Your task to perform on an android device: Go to display settings Image 0: 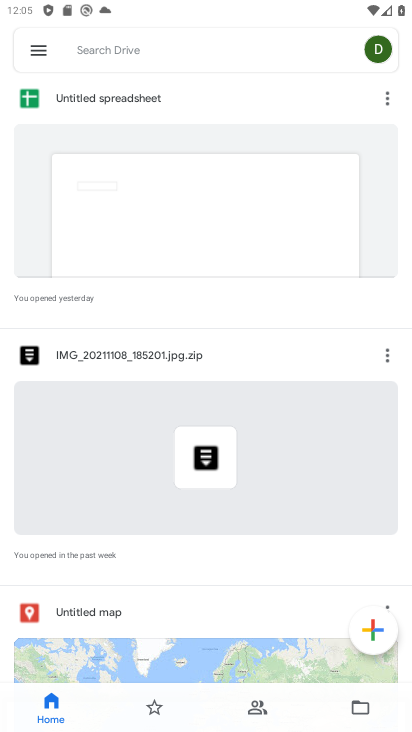
Step 0: press home button
Your task to perform on an android device: Go to display settings Image 1: 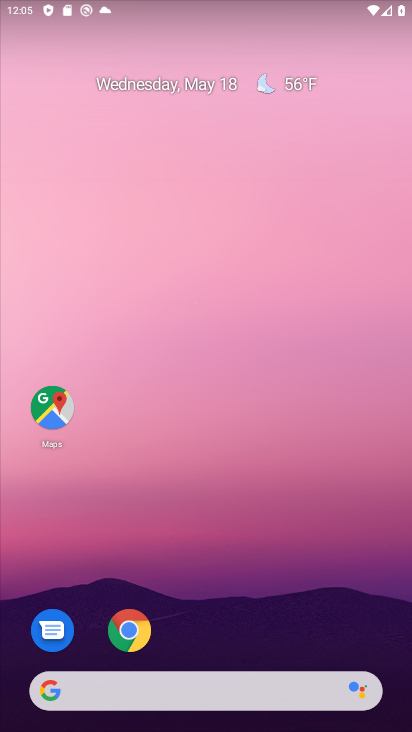
Step 1: drag from (300, 558) to (253, 242)
Your task to perform on an android device: Go to display settings Image 2: 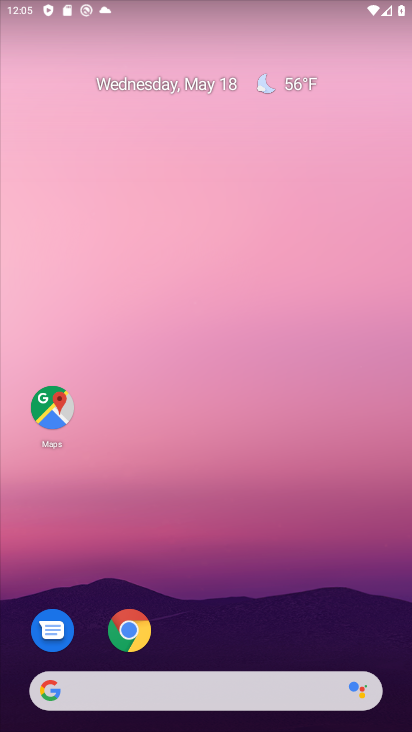
Step 2: drag from (305, 550) to (297, 100)
Your task to perform on an android device: Go to display settings Image 3: 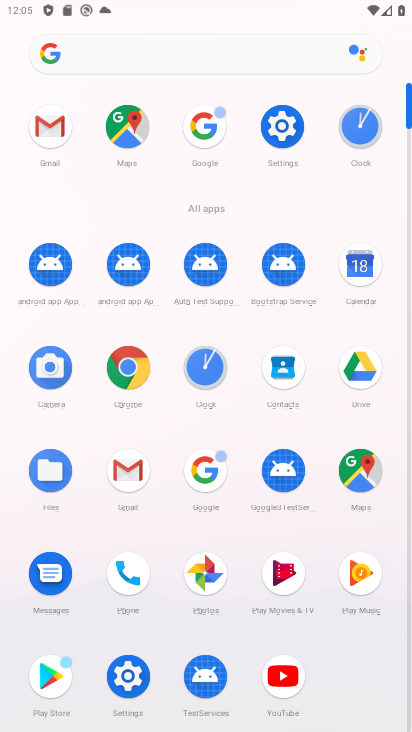
Step 3: click (276, 120)
Your task to perform on an android device: Go to display settings Image 4: 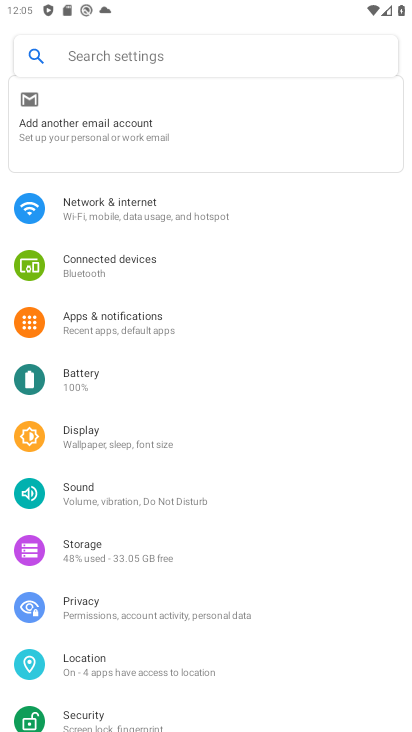
Step 4: click (131, 437)
Your task to perform on an android device: Go to display settings Image 5: 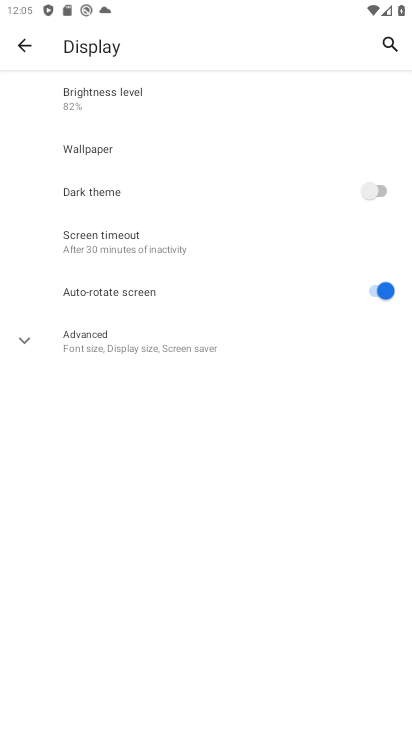
Step 5: task complete